Your task to perform on an android device: check data usage Image 0: 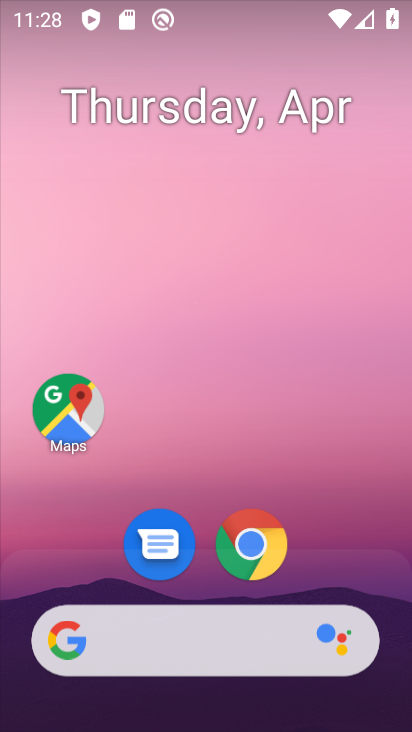
Step 0: drag from (336, 568) to (261, 50)
Your task to perform on an android device: check data usage Image 1: 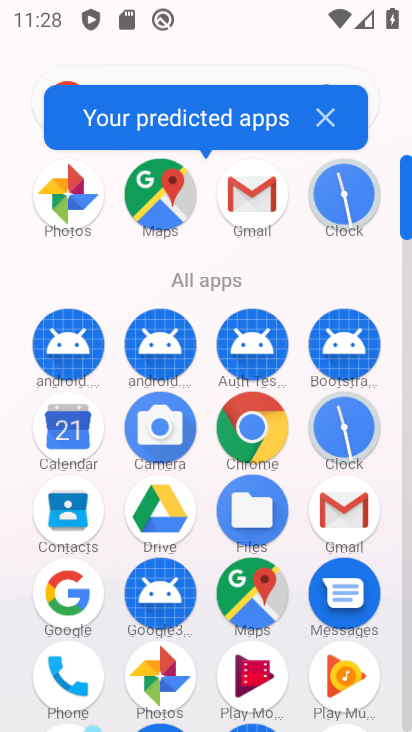
Step 1: drag from (312, 304) to (287, 27)
Your task to perform on an android device: check data usage Image 2: 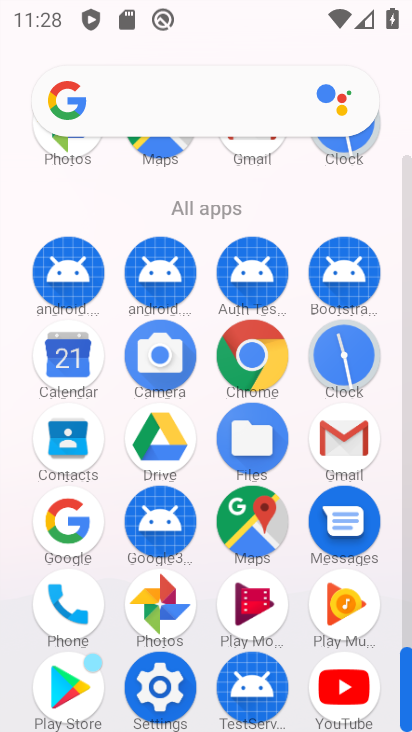
Step 2: drag from (220, 10) to (243, 573)
Your task to perform on an android device: check data usage Image 3: 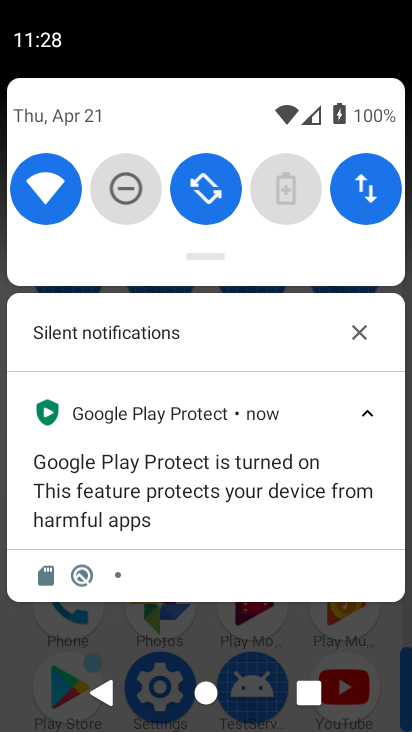
Step 3: click (356, 184)
Your task to perform on an android device: check data usage Image 4: 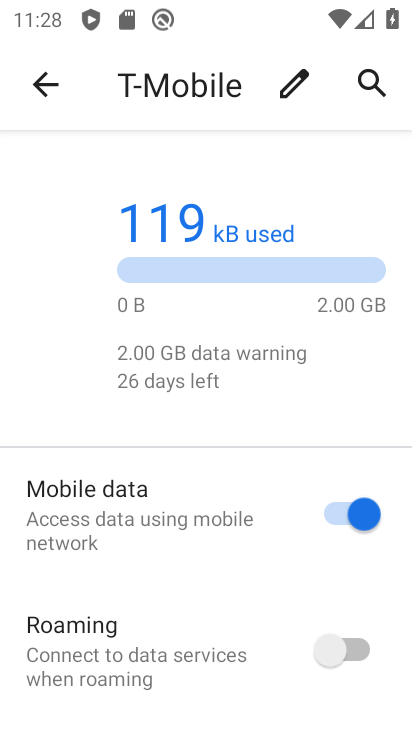
Step 4: task complete